Your task to perform on an android device: Show me productivity apps on the Play Store Image 0: 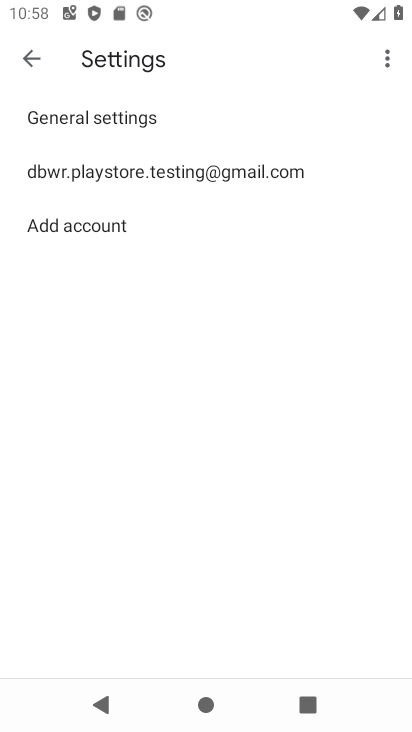
Step 0: press home button
Your task to perform on an android device: Show me productivity apps on the Play Store Image 1: 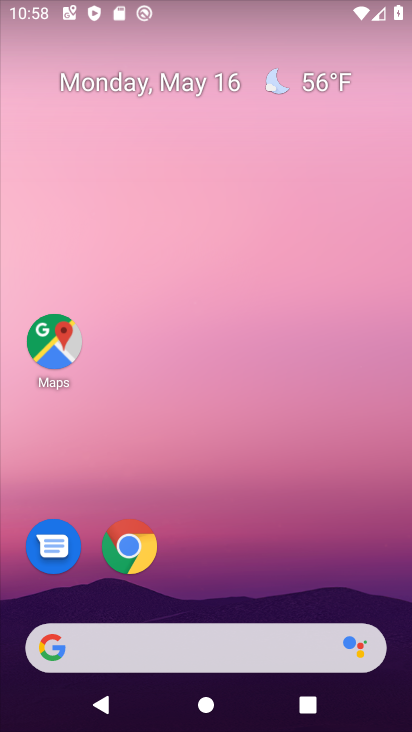
Step 1: drag from (276, 535) to (254, 94)
Your task to perform on an android device: Show me productivity apps on the Play Store Image 2: 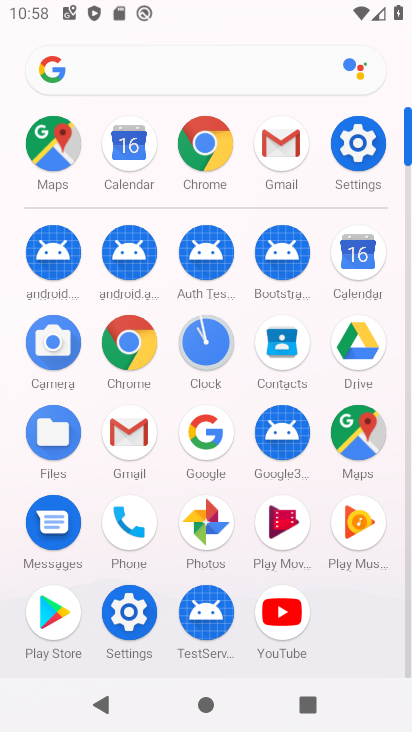
Step 2: drag from (377, 597) to (354, 223)
Your task to perform on an android device: Show me productivity apps on the Play Store Image 3: 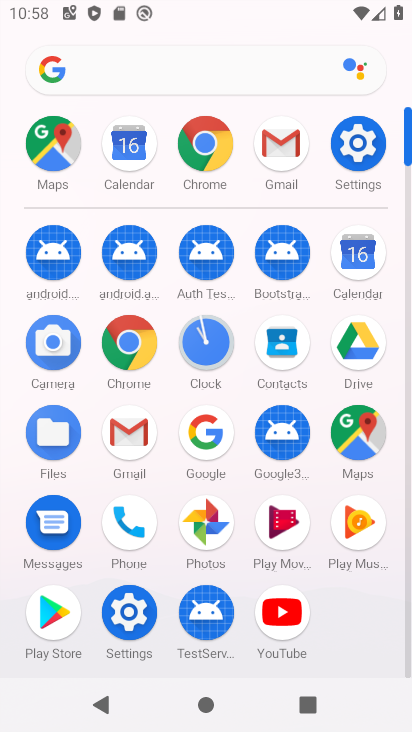
Step 3: click (41, 617)
Your task to perform on an android device: Show me productivity apps on the Play Store Image 4: 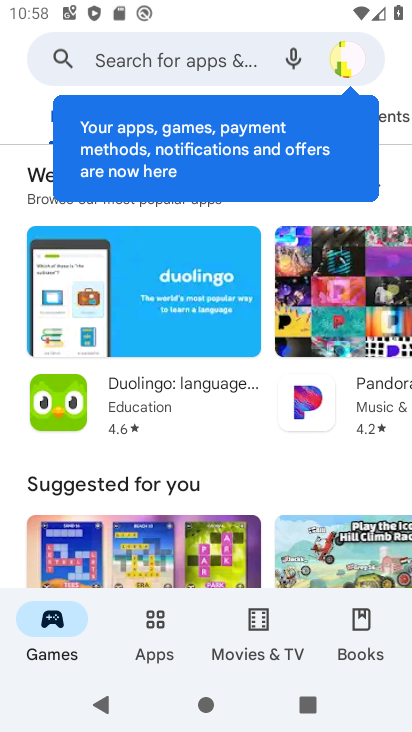
Step 4: click (163, 63)
Your task to perform on an android device: Show me productivity apps on the Play Store Image 5: 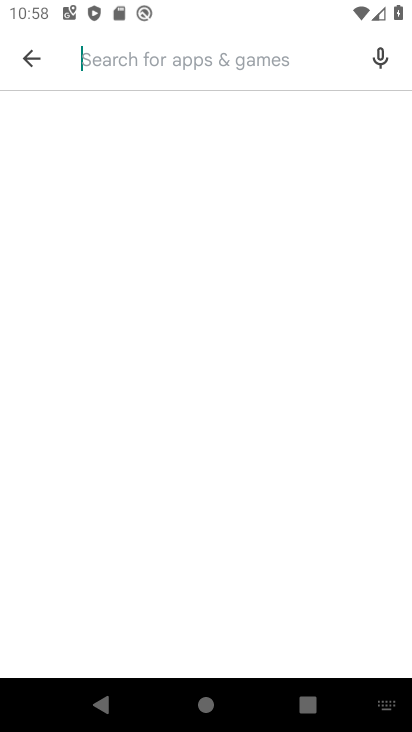
Step 5: type "productivity apps "
Your task to perform on an android device: Show me productivity apps on the Play Store Image 6: 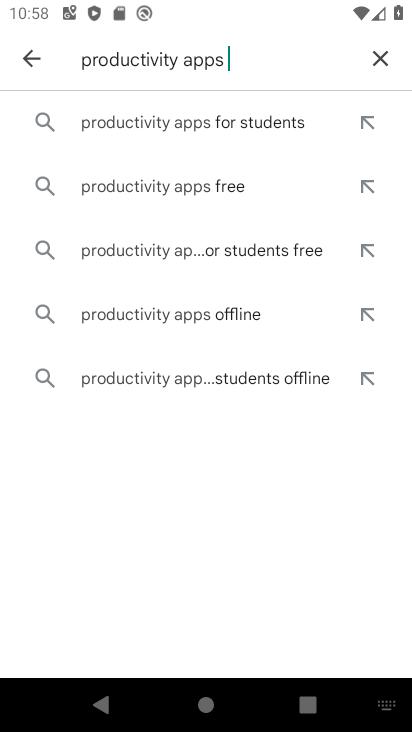
Step 6: press enter
Your task to perform on an android device: Show me productivity apps on the Play Store Image 7: 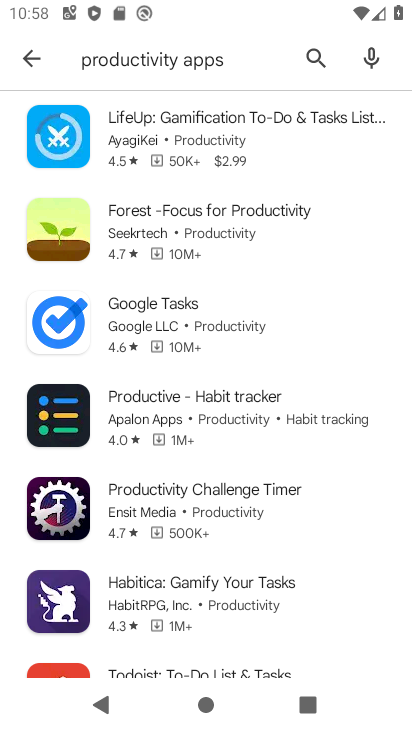
Step 7: task complete